Your task to perform on an android device: Show me productivity apps on the Play Store Image 0: 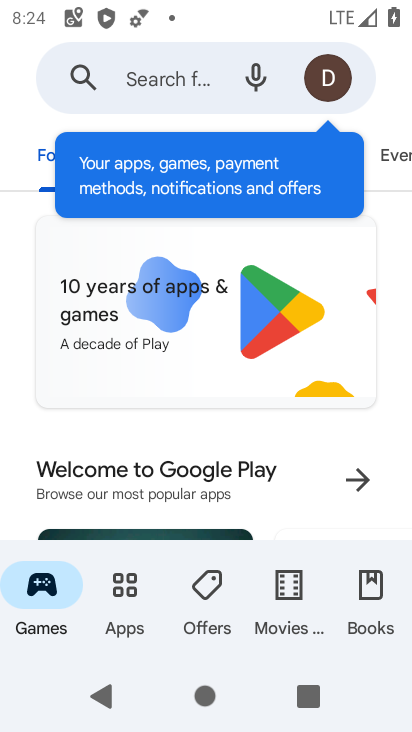
Step 0: click (120, 601)
Your task to perform on an android device: Show me productivity apps on the Play Store Image 1: 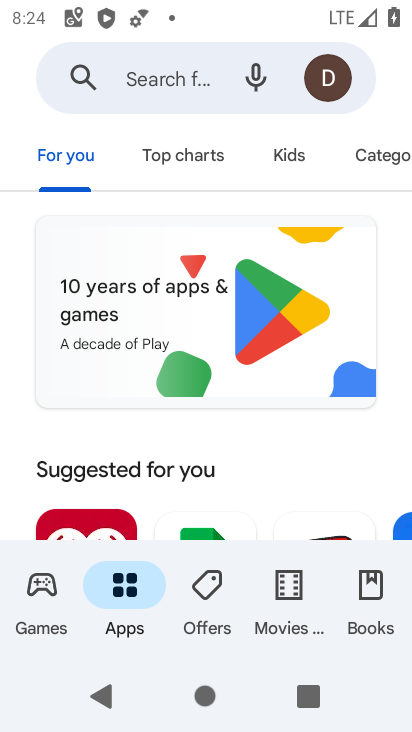
Step 1: drag from (233, 522) to (313, 91)
Your task to perform on an android device: Show me productivity apps on the Play Store Image 2: 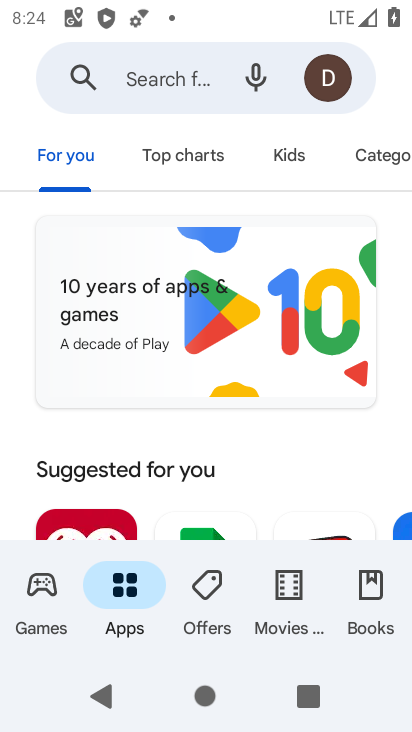
Step 2: drag from (163, 450) to (225, 108)
Your task to perform on an android device: Show me productivity apps on the Play Store Image 3: 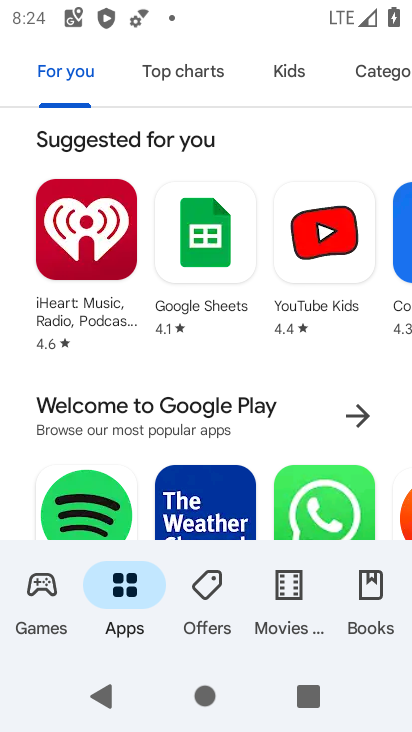
Step 3: drag from (199, 486) to (278, 113)
Your task to perform on an android device: Show me productivity apps on the Play Store Image 4: 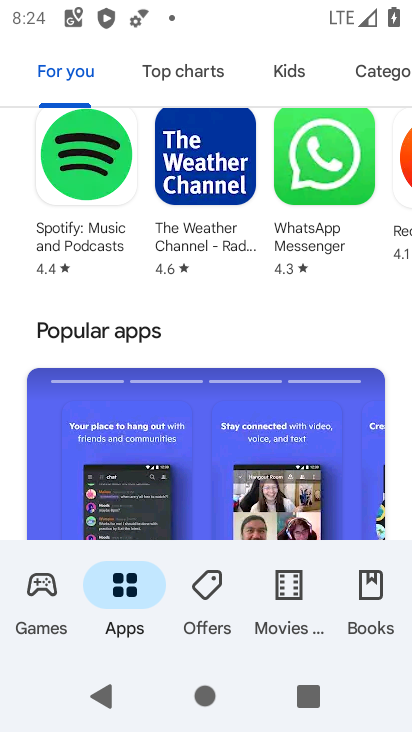
Step 4: drag from (169, 483) to (273, 123)
Your task to perform on an android device: Show me productivity apps on the Play Store Image 5: 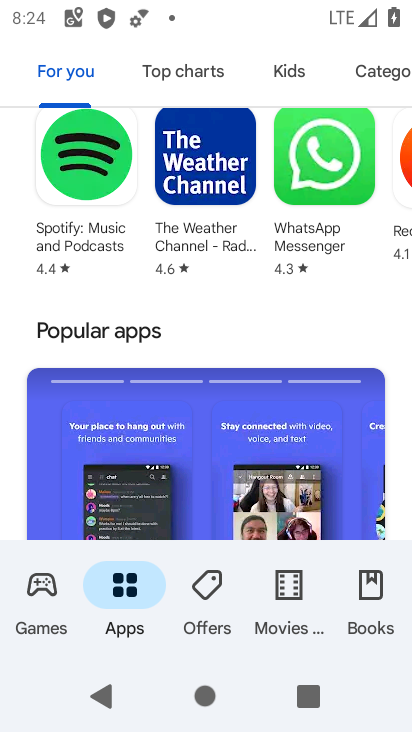
Step 5: drag from (160, 481) to (252, 147)
Your task to perform on an android device: Show me productivity apps on the Play Store Image 6: 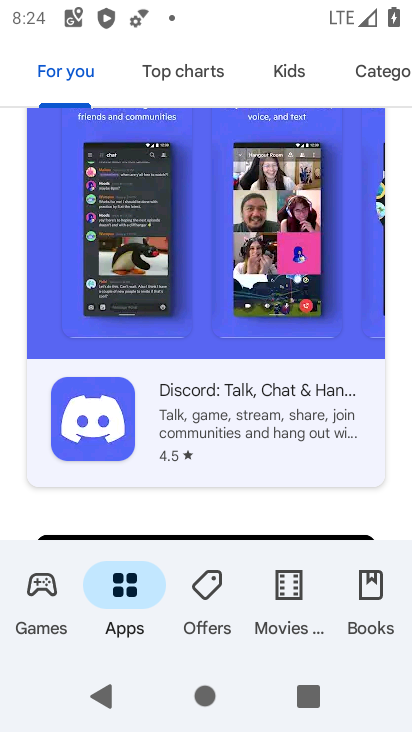
Step 6: drag from (182, 435) to (217, 80)
Your task to perform on an android device: Show me productivity apps on the Play Store Image 7: 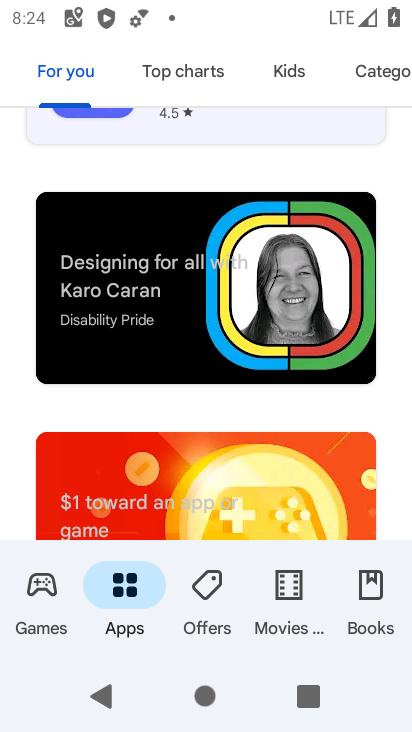
Step 7: drag from (186, 239) to (154, 587)
Your task to perform on an android device: Show me productivity apps on the Play Store Image 8: 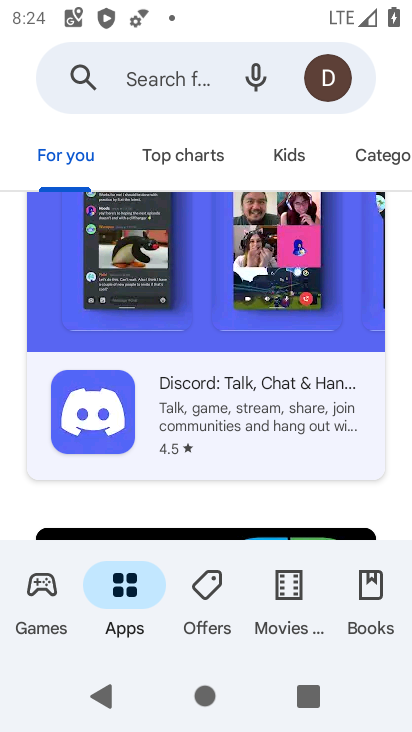
Step 8: drag from (211, 269) to (183, 587)
Your task to perform on an android device: Show me productivity apps on the Play Store Image 9: 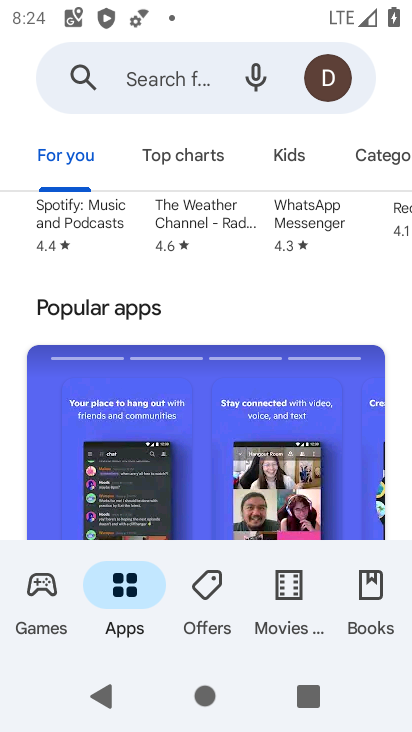
Step 9: drag from (203, 232) to (187, 498)
Your task to perform on an android device: Show me productivity apps on the Play Store Image 10: 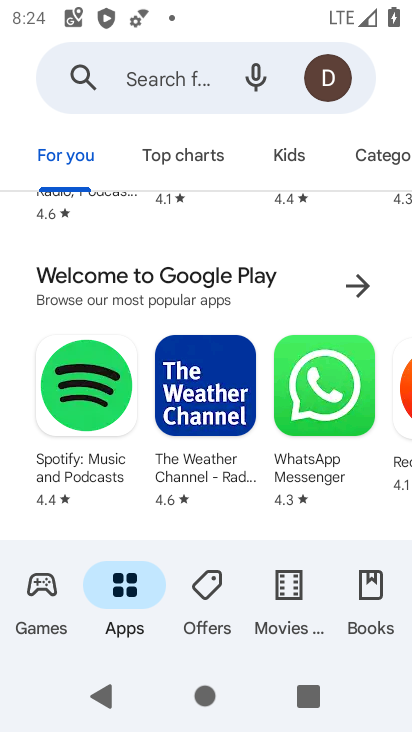
Step 10: drag from (191, 267) to (160, 559)
Your task to perform on an android device: Show me productivity apps on the Play Store Image 11: 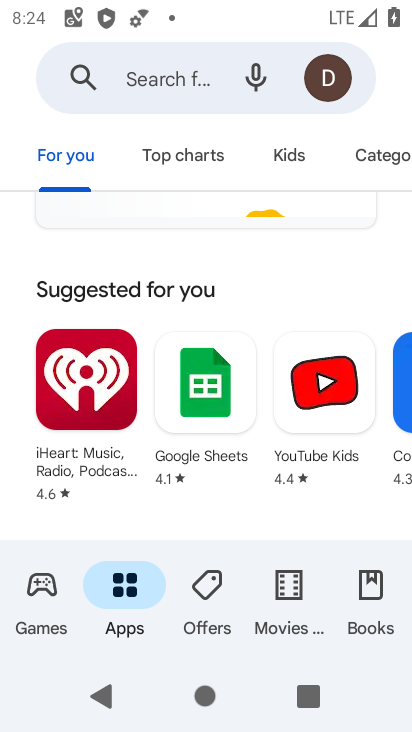
Step 11: drag from (182, 293) to (149, 574)
Your task to perform on an android device: Show me productivity apps on the Play Store Image 12: 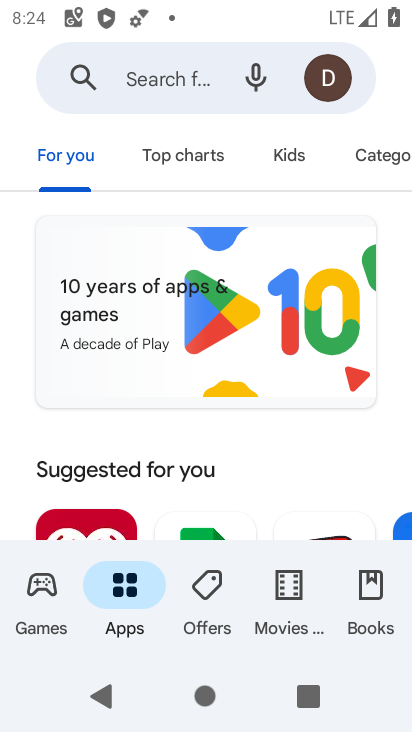
Step 12: drag from (149, 464) to (220, 43)
Your task to perform on an android device: Show me productivity apps on the Play Store Image 13: 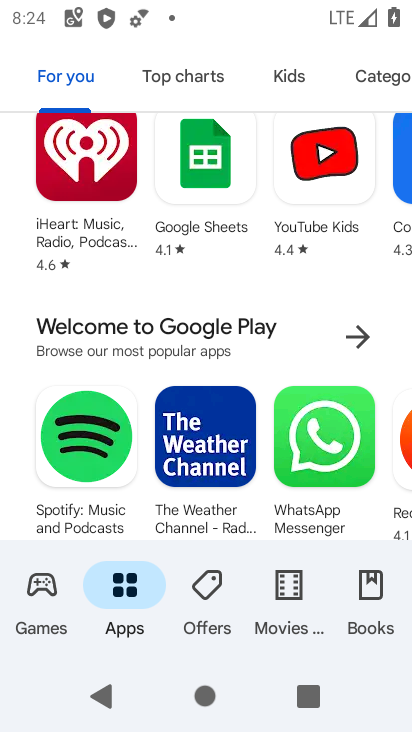
Step 13: drag from (214, 515) to (260, 42)
Your task to perform on an android device: Show me productivity apps on the Play Store Image 14: 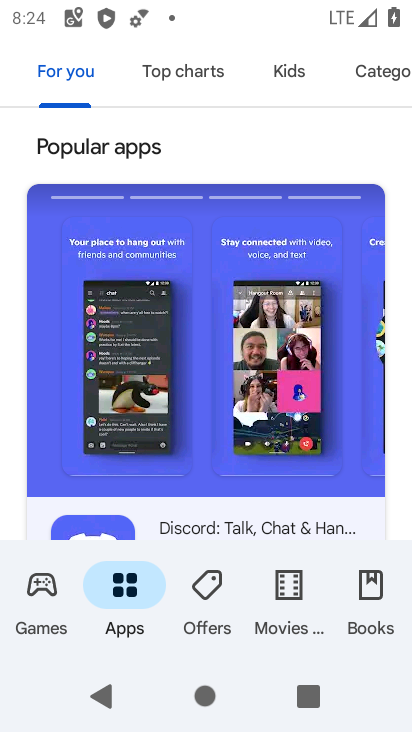
Step 14: drag from (197, 453) to (258, 17)
Your task to perform on an android device: Show me productivity apps on the Play Store Image 15: 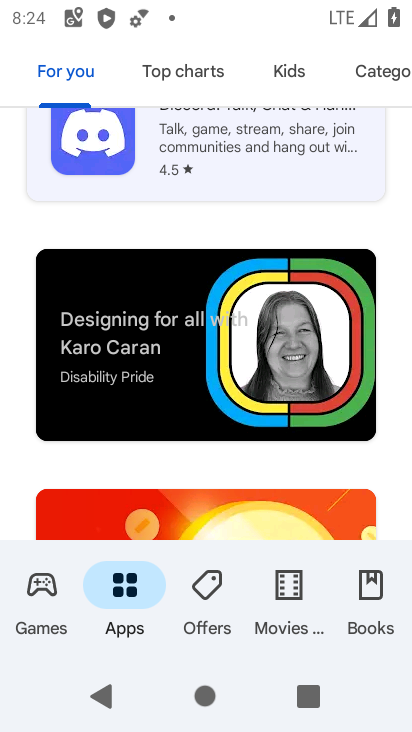
Step 15: drag from (155, 491) to (288, 8)
Your task to perform on an android device: Show me productivity apps on the Play Store Image 16: 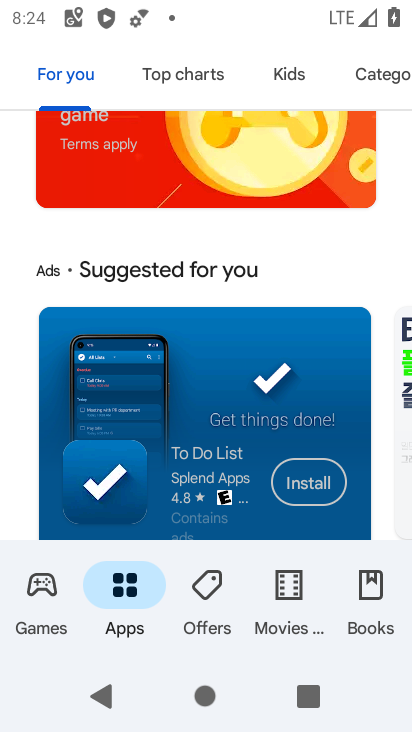
Step 16: drag from (206, 479) to (272, 28)
Your task to perform on an android device: Show me productivity apps on the Play Store Image 17: 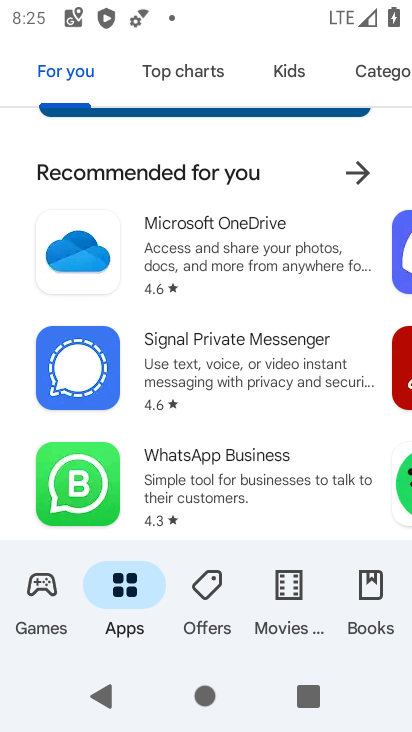
Step 17: drag from (173, 519) to (252, 55)
Your task to perform on an android device: Show me productivity apps on the Play Store Image 18: 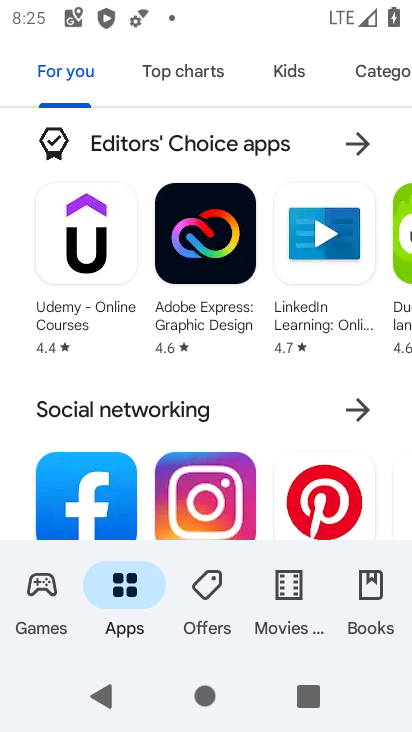
Step 18: drag from (178, 496) to (280, 1)
Your task to perform on an android device: Show me productivity apps on the Play Store Image 19: 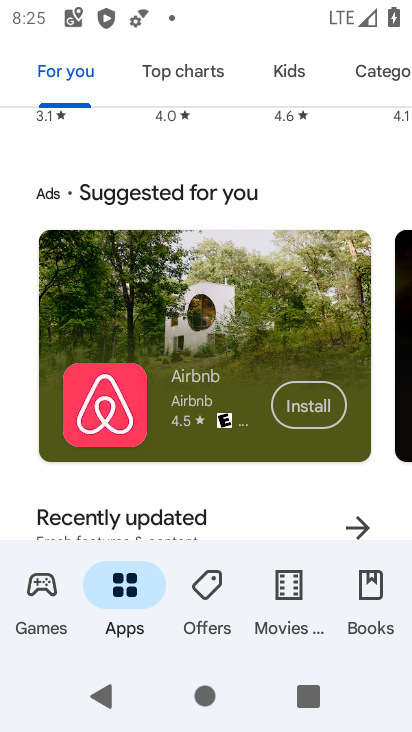
Step 19: drag from (152, 498) to (194, 50)
Your task to perform on an android device: Show me productivity apps on the Play Store Image 20: 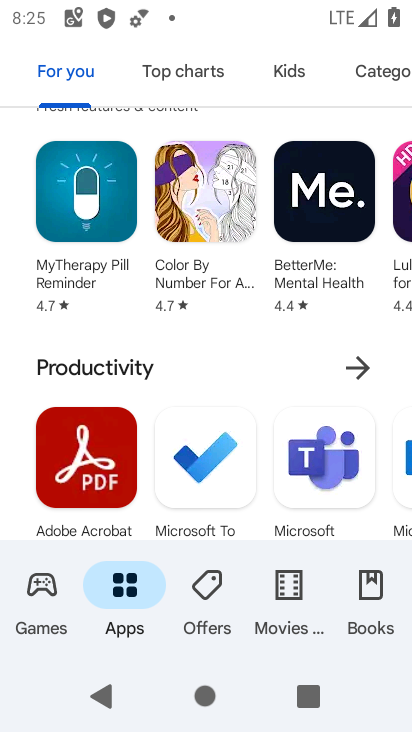
Step 20: click (351, 373)
Your task to perform on an android device: Show me productivity apps on the Play Store Image 21: 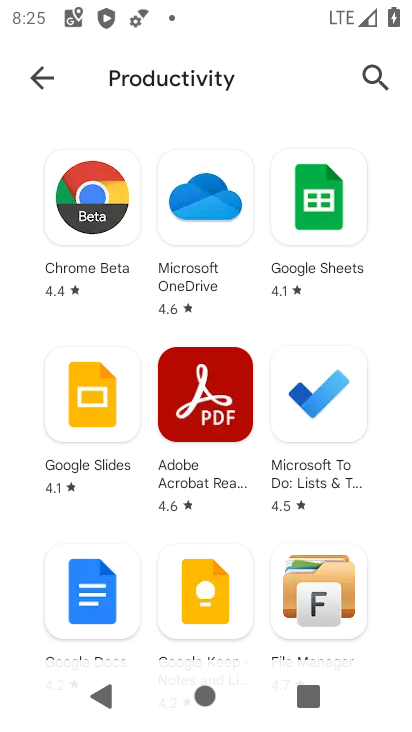
Step 21: task complete